Your task to perform on an android device: change the upload size in google photos Image 0: 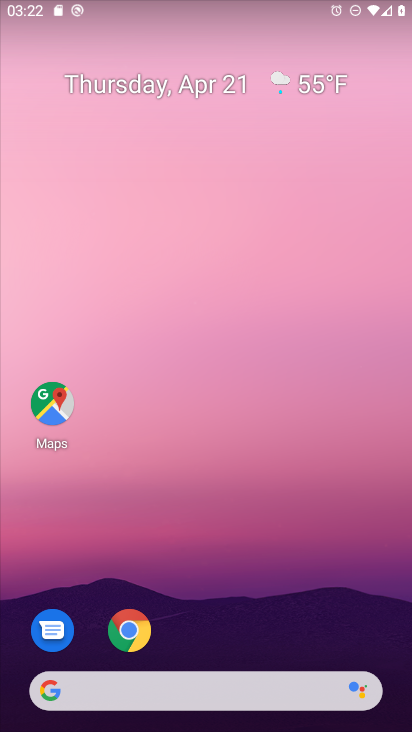
Step 0: drag from (295, 605) to (286, 129)
Your task to perform on an android device: change the upload size in google photos Image 1: 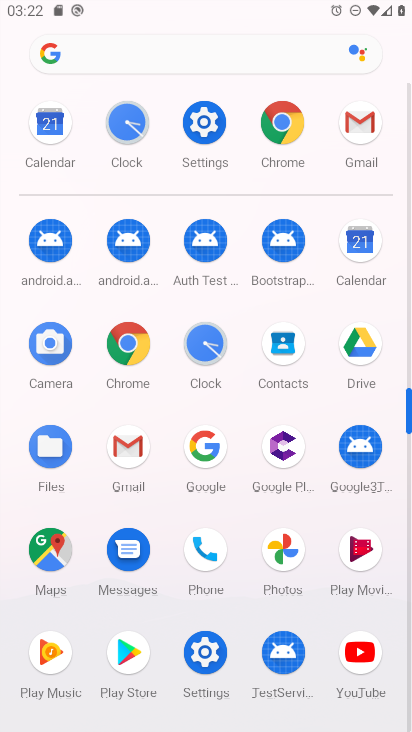
Step 1: click (287, 550)
Your task to perform on an android device: change the upload size in google photos Image 2: 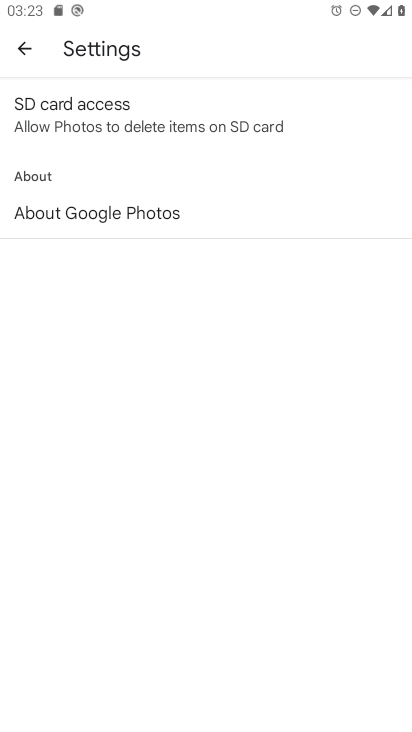
Step 2: click (8, 48)
Your task to perform on an android device: change the upload size in google photos Image 3: 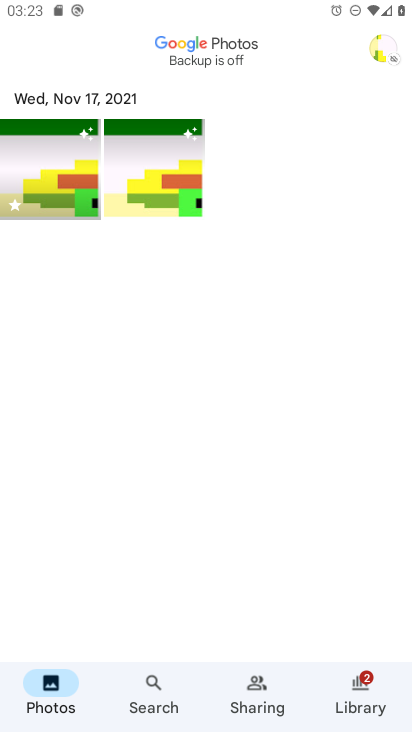
Step 3: click (359, 693)
Your task to perform on an android device: change the upload size in google photos Image 4: 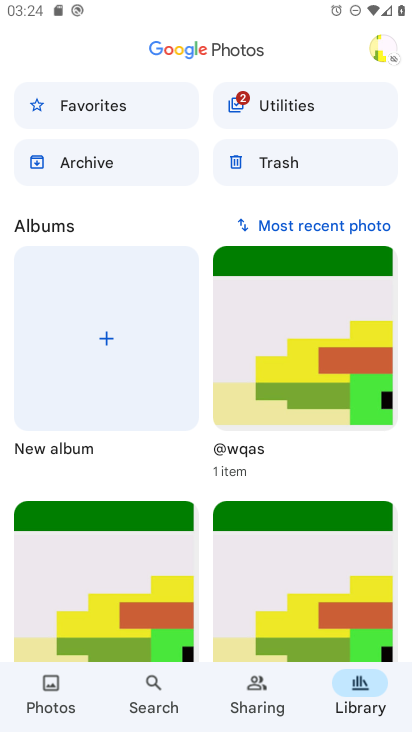
Step 4: click (385, 61)
Your task to perform on an android device: change the upload size in google photos Image 5: 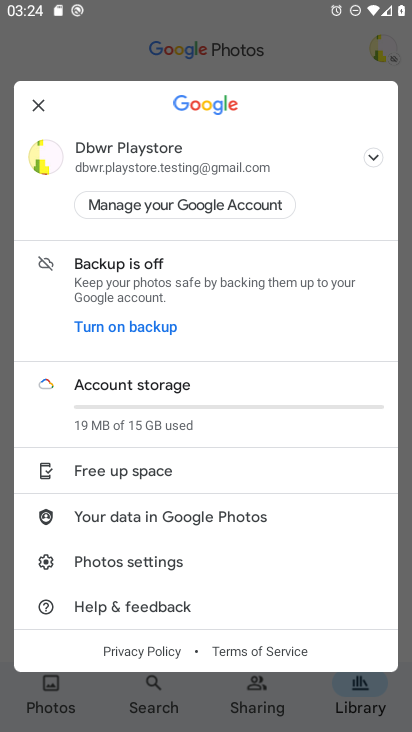
Step 5: click (197, 567)
Your task to perform on an android device: change the upload size in google photos Image 6: 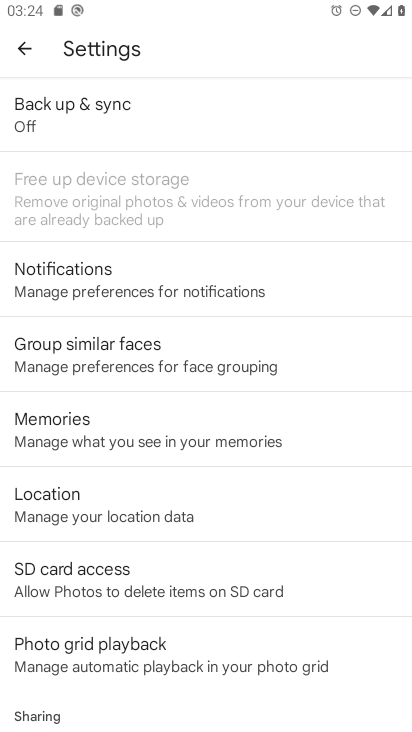
Step 6: task complete